Your task to perform on an android device: Go to privacy settings Image 0: 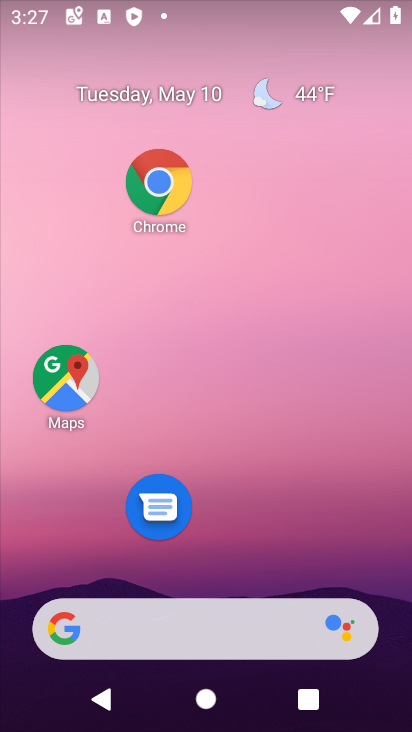
Step 0: drag from (352, 469) to (262, 94)
Your task to perform on an android device: Go to privacy settings Image 1: 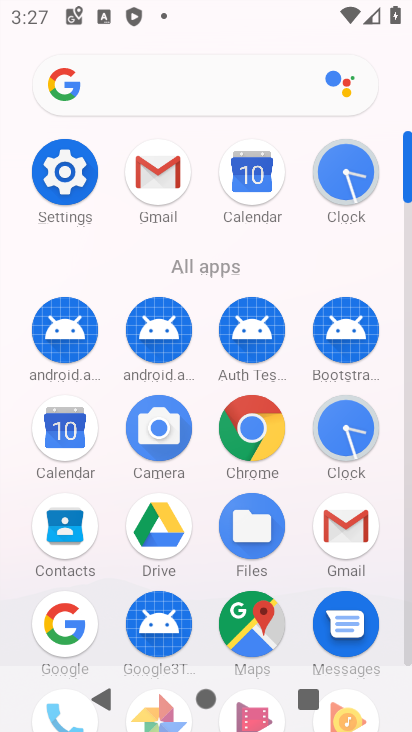
Step 1: click (40, 198)
Your task to perform on an android device: Go to privacy settings Image 2: 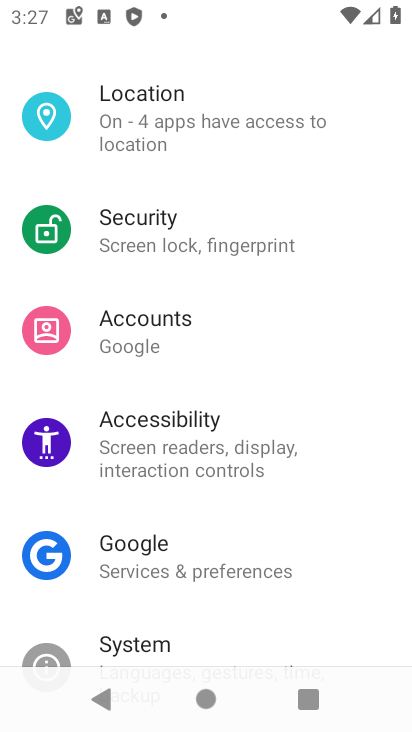
Step 2: drag from (141, 255) to (206, 719)
Your task to perform on an android device: Go to privacy settings Image 3: 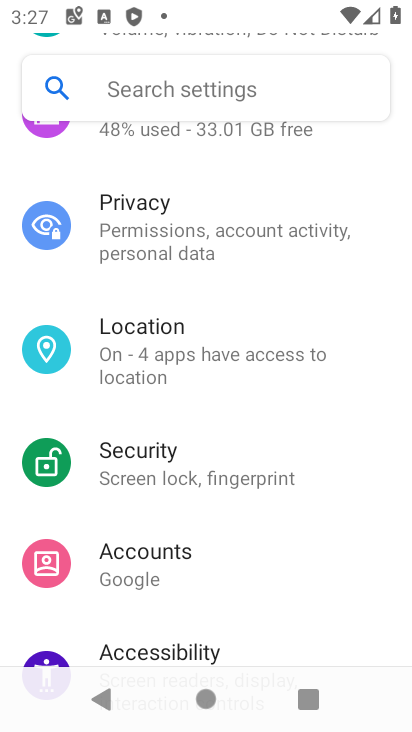
Step 3: click (199, 235)
Your task to perform on an android device: Go to privacy settings Image 4: 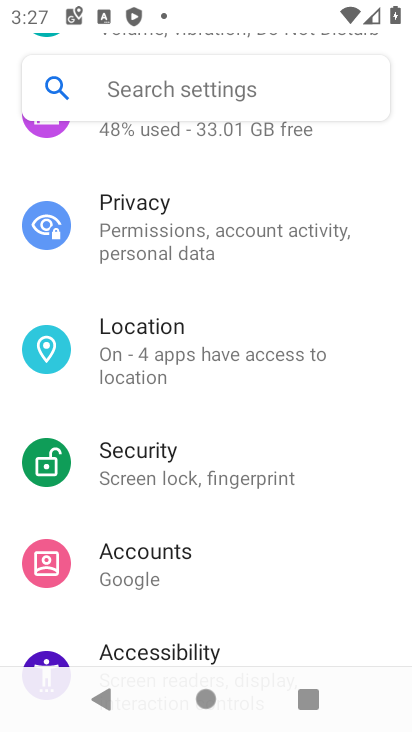
Step 4: task complete